Your task to perform on an android device: Open the Play Movies app and select the watchlist tab. Image 0: 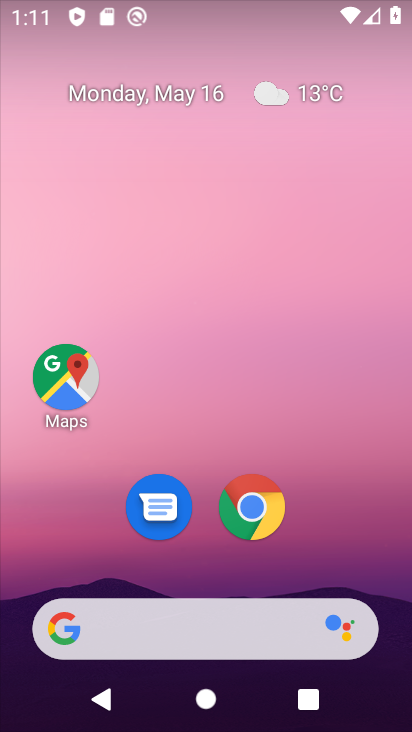
Step 0: drag from (194, 564) to (283, 65)
Your task to perform on an android device: Open the Play Movies app and select the watchlist tab. Image 1: 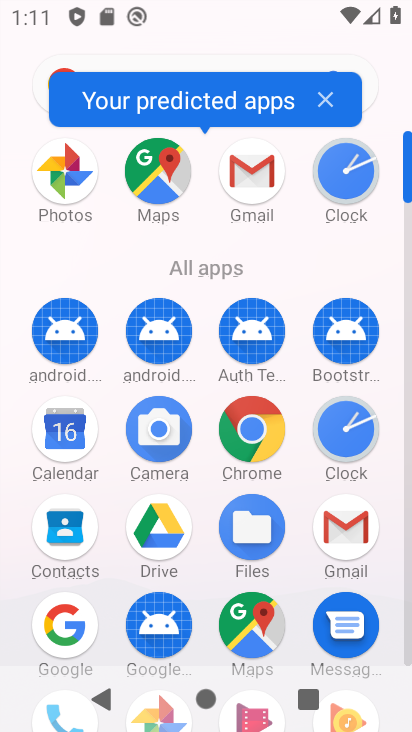
Step 1: drag from (294, 564) to (302, 256)
Your task to perform on an android device: Open the Play Movies app and select the watchlist tab. Image 2: 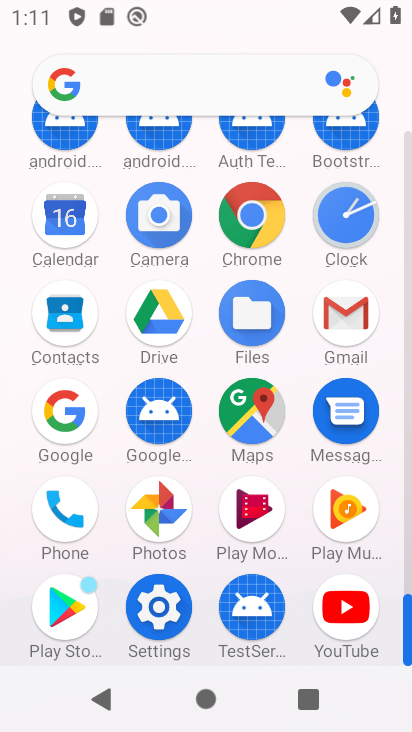
Step 2: click (245, 519)
Your task to perform on an android device: Open the Play Movies app and select the watchlist tab. Image 3: 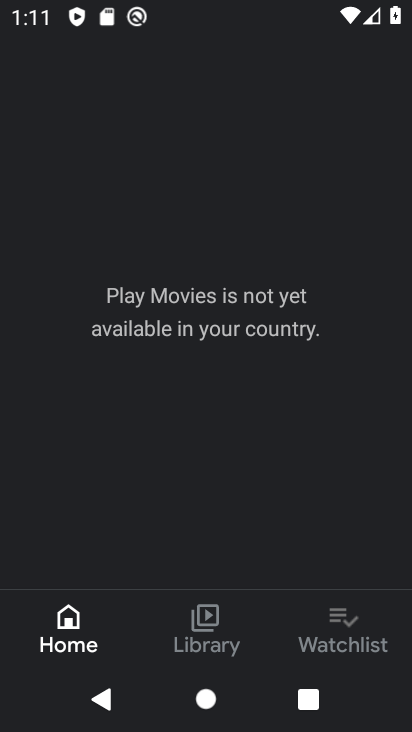
Step 3: click (331, 613)
Your task to perform on an android device: Open the Play Movies app and select the watchlist tab. Image 4: 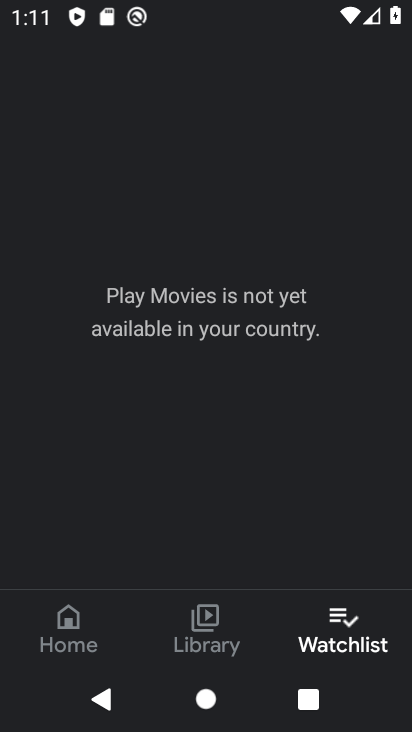
Step 4: task complete